Your task to perform on an android device: turn on bluetooth scan Image 0: 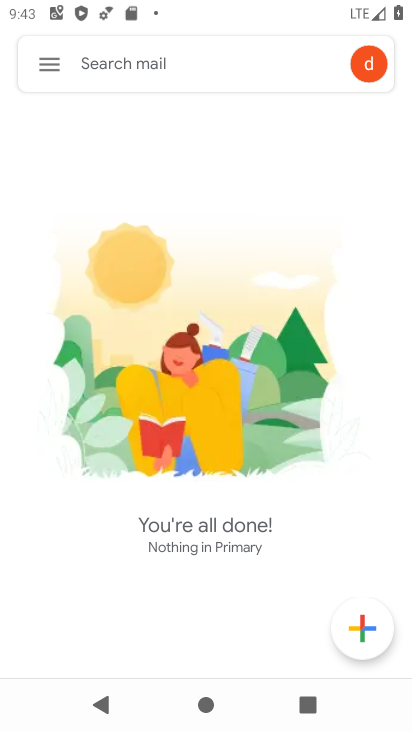
Step 0: press home button
Your task to perform on an android device: turn on bluetooth scan Image 1: 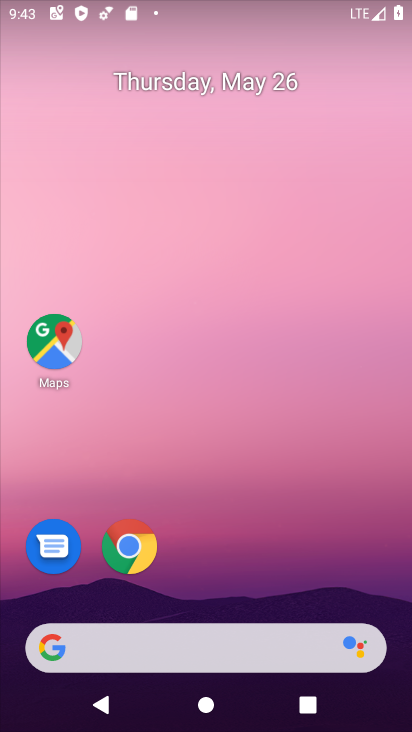
Step 1: drag from (338, 539) to (344, 175)
Your task to perform on an android device: turn on bluetooth scan Image 2: 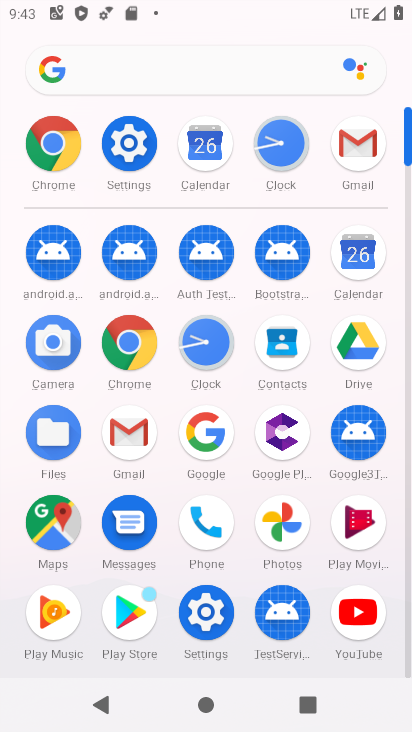
Step 2: click (105, 152)
Your task to perform on an android device: turn on bluetooth scan Image 3: 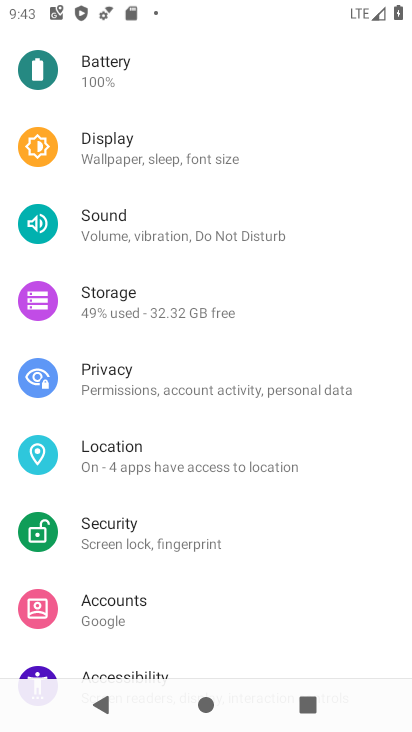
Step 3: click (170, 463)
Your task to perform on an android device: turn on bluetooth scan Image 4: 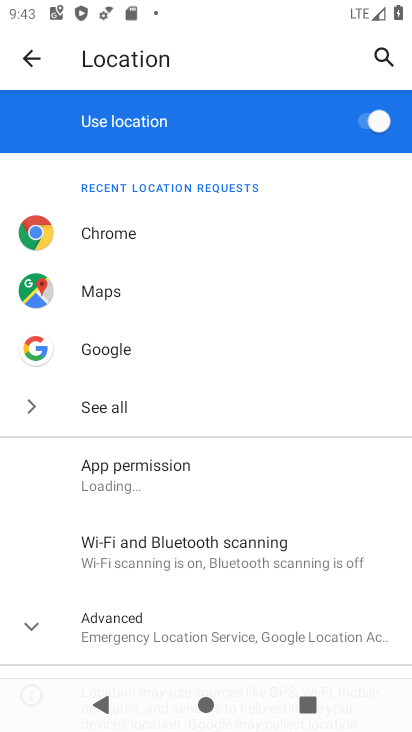
Step 4: click (284, 555)
Your task to perform on an android device: turn on bluetooth scan Image 5: 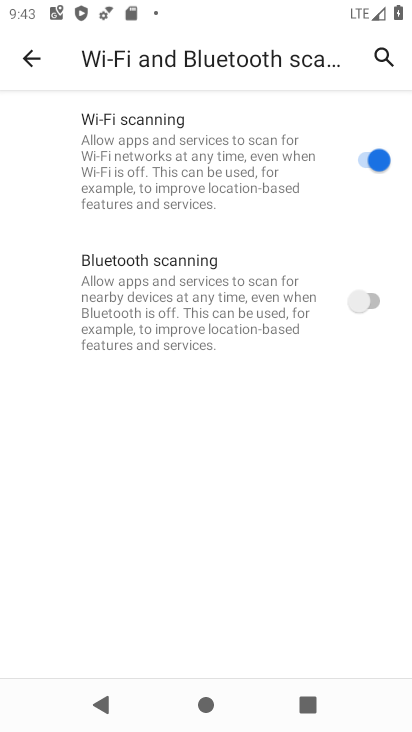
Step 5: click (377, 298)
Your task to perform on an android device: turn on bluetooth scan Image 6: 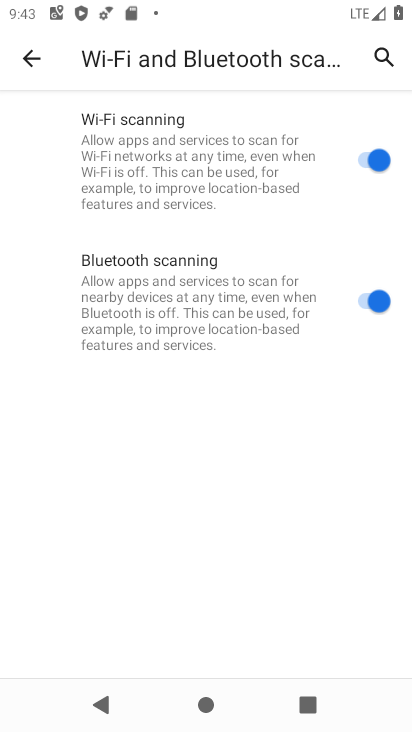
Step 6: task complete